Your task to perform on an android device: Open Android settings Image 0: 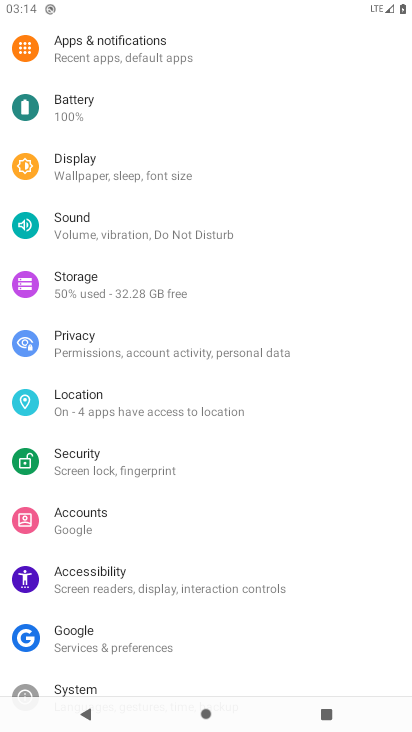
Step 0: press home button
Your task to perform on an android device: Open Android settings Image 1: 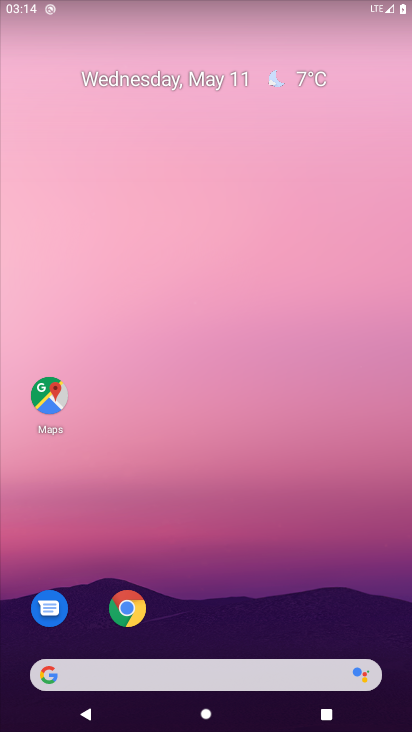
Step 1: drag from (221, 640) to (261, 81)
Your task to perform on an android device: Open Android settings Image 2: 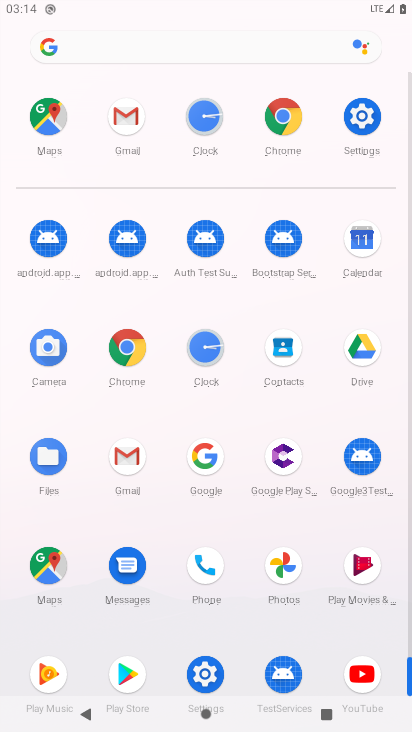
Step 2: click (360, 113)
Your task to perform on an android device: Open Android settings Image 3: 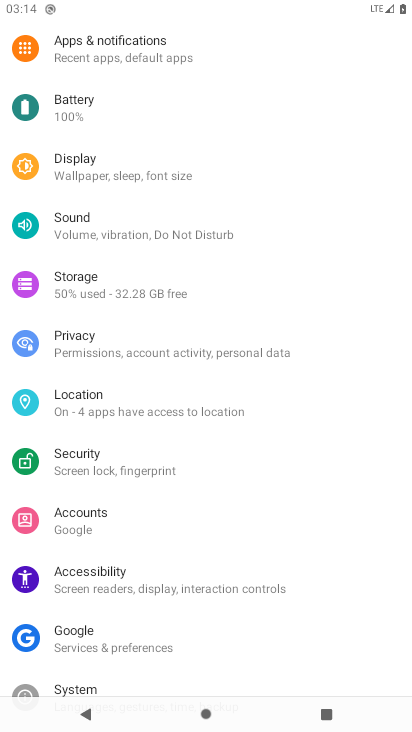
Step 3: drag from (214, 654) to (251, 96)
Your task to perform on an android device: Open Android settings Image 4: 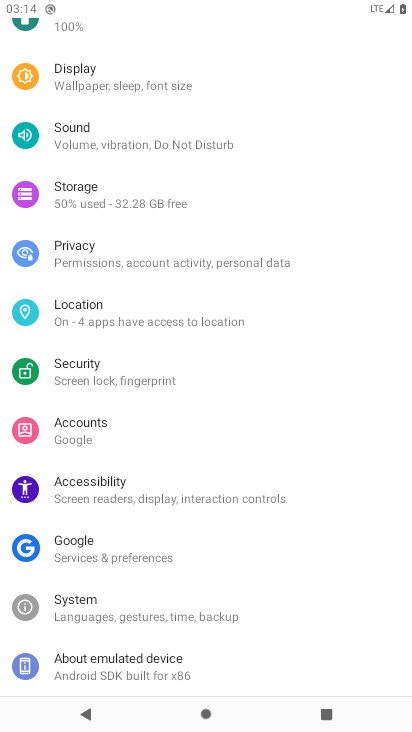
Step 4: click (192, 666)
Your task to perform on an android device: Open Android settings Image 5: 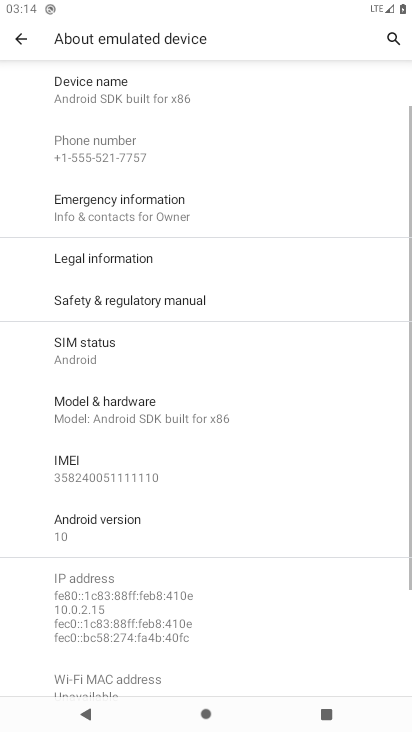
Step 5: click (128, 530)
Your task to perform on an android device: Open Android settings Image 6: 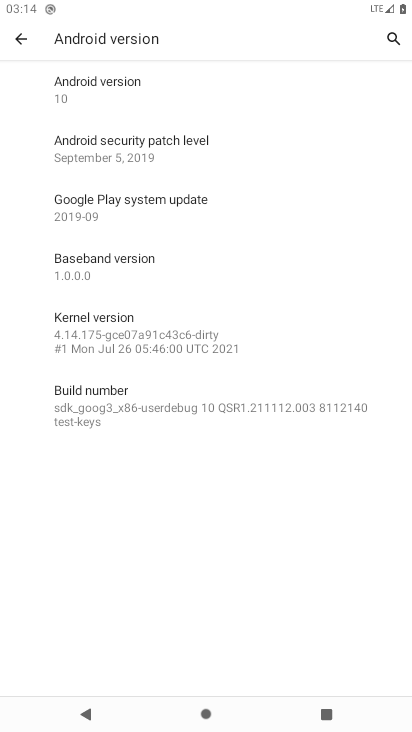
Step 6: task complete